Your task to perform on an android device: When is my next appointment? Image 0: 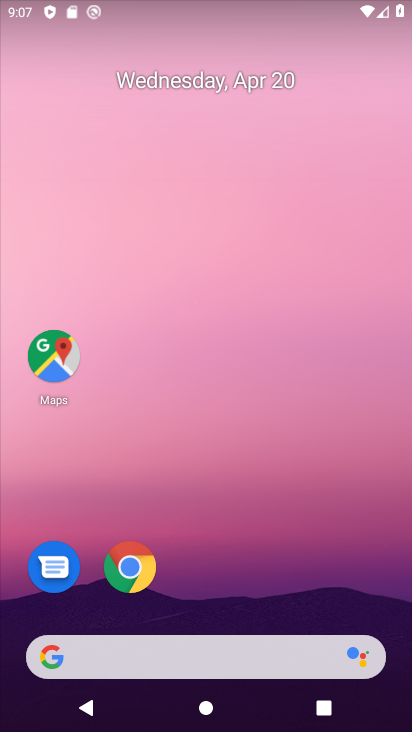
Step 0: drag from (294, 617) to (297, 233)
Your task to perform on an android device: When is my next appointment? Image 1: 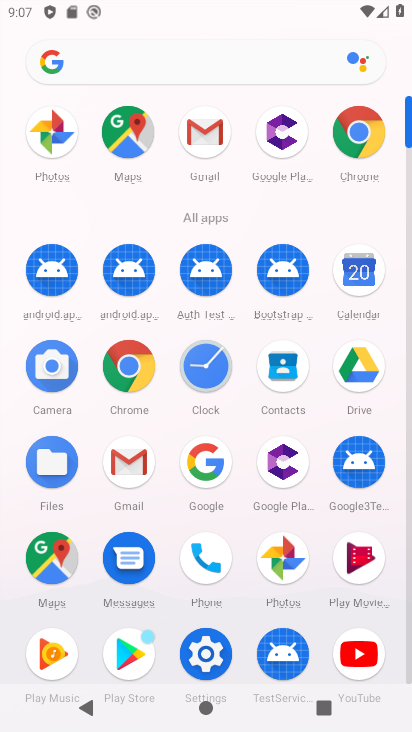
Step 1: click (358, 274)
Your task to perform on an android device: When is my next appointment? Image 2: 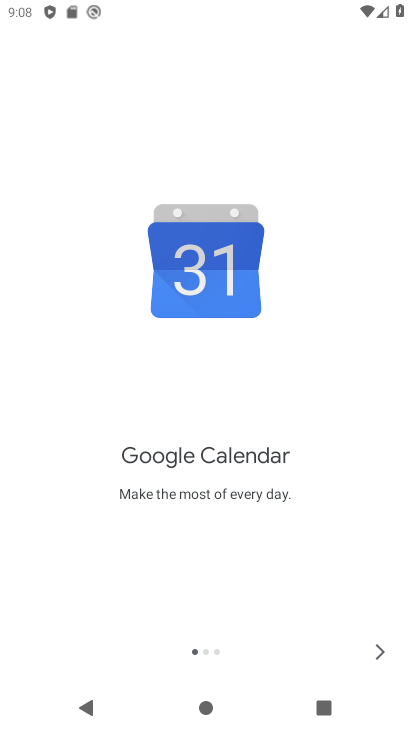
Step 2: click (369, 656)
Your task to perform on an android device: When is my next appointment? Image 3: 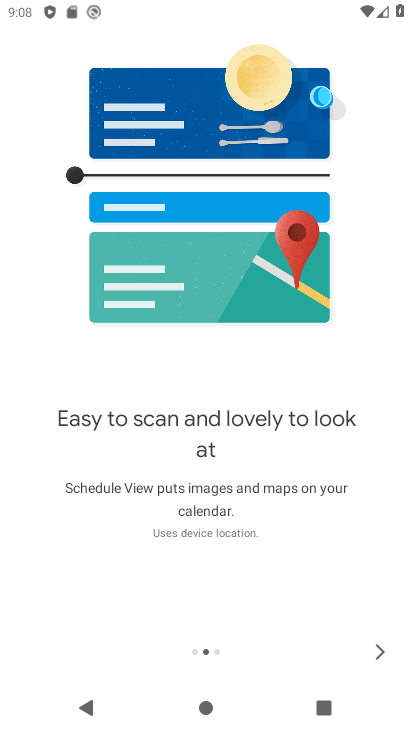
Step 3: click (369, 656)
Your task to perform on an android device: When is my next appointment? Image 4: 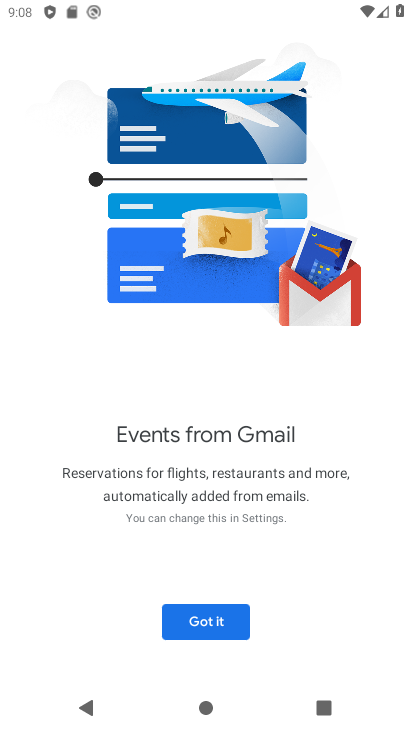
Step 4: click (208, 618)
Your task to perform on an android device: When is my next appointment? Image 5: 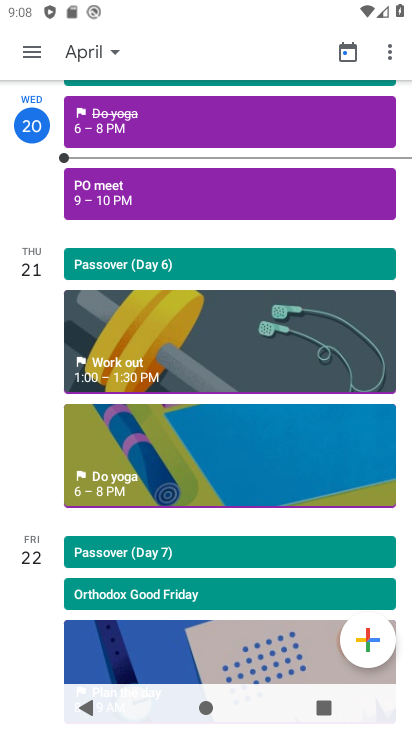
Step 5: drag from (143, 604) to (162, 410)
Your task to perform on an android device: When is my next appointment? Image 6: 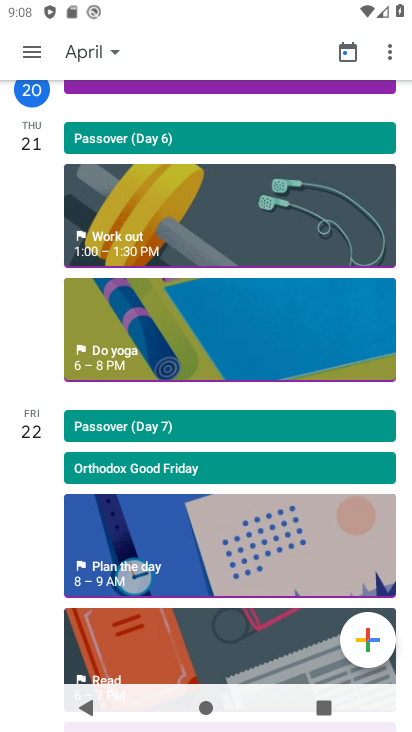
Step 6: click (134, 359)
Your task to perform on an android device: When is my next appointment? Image 7: 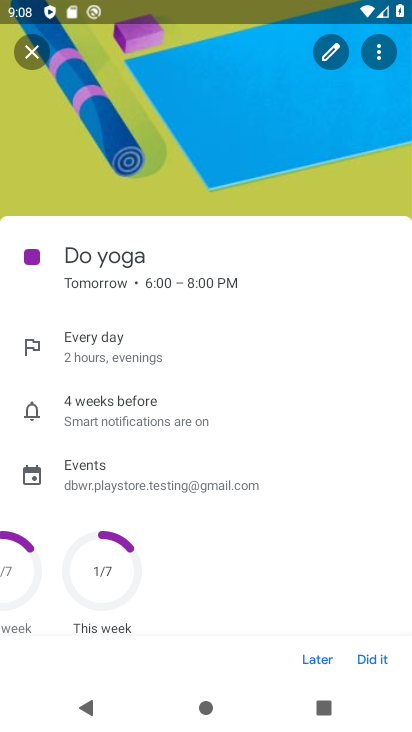
Step 7: click (104, 706)
Your task to perform on an android device: When is my next appointment? Image 8: 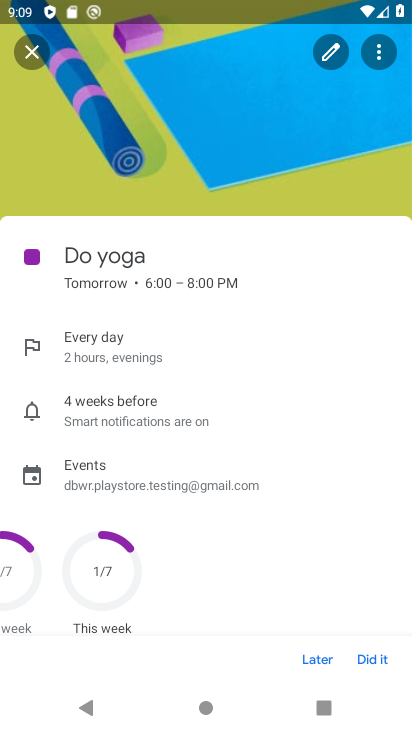
Step 8: click (88, 694)
Your task to perform on an android device: When is my next appointment? Image 9: 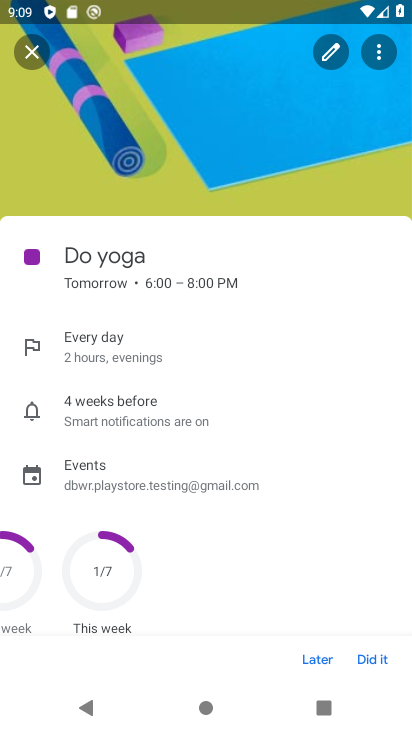
Step 9: task complete